Your task to perform on an android device: open a new tab in the chrome app Image 0: 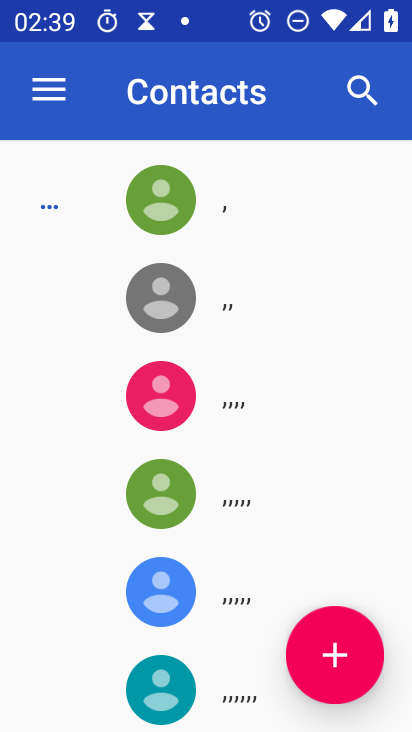
Step 0: press home button
Your task to perform on an android device: open a new tab in the chrome app Image 1: 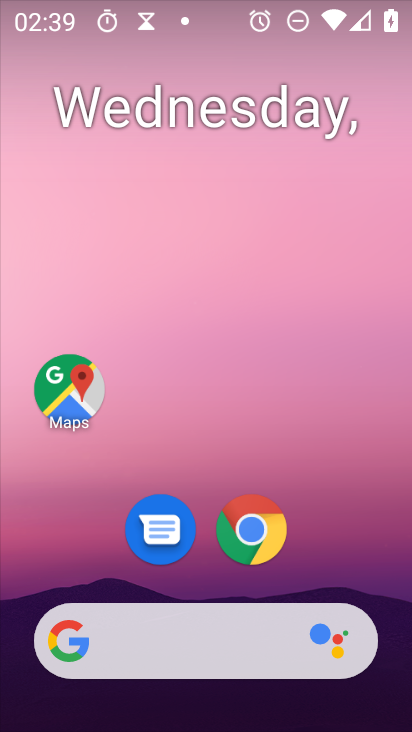
Step 1: drag from (200, 676) to (250, 22)
Your task to perform on an android device: open a new tab in the chrome app Image 2: 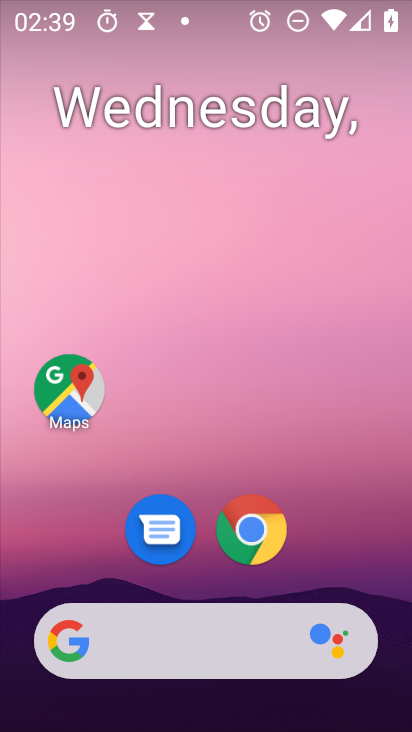
Step 2: drag from (284, 630) to (317, 34)
Your task to perform on an android device: open a new tab in the chrome app Image 3: 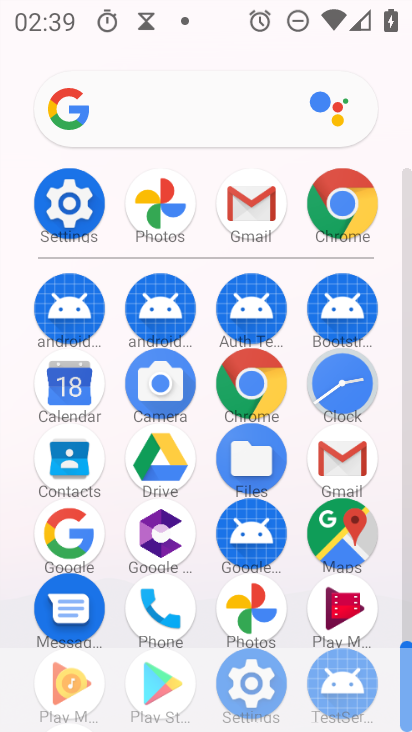
Step 3: click (245, 398)
Your task to perform on an android device: open a new tab in the chrome app Image 4: 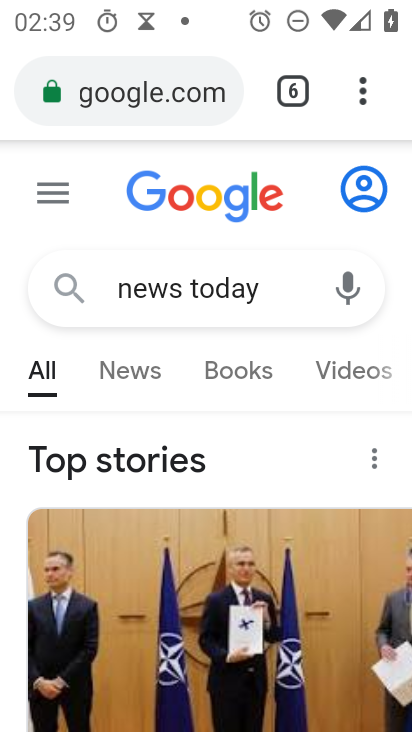
Step 4: click (357, 86)
Your task to perform on an android device: open a new tab in the chrome app Image 5: 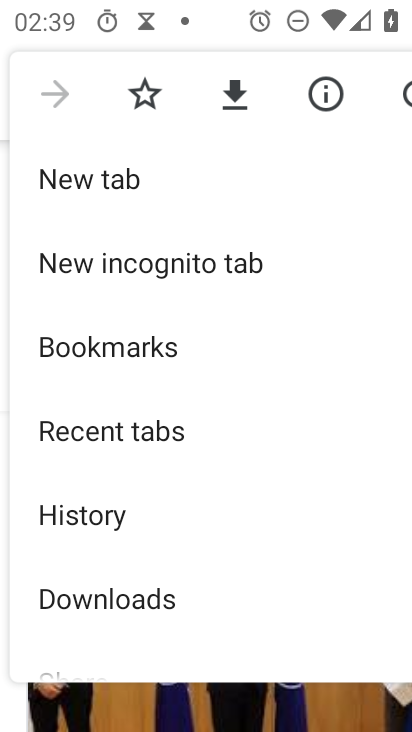
Step 5: click (139, 177)
Your task to perform on an android device: open a new tab in the chrome app Image 6: 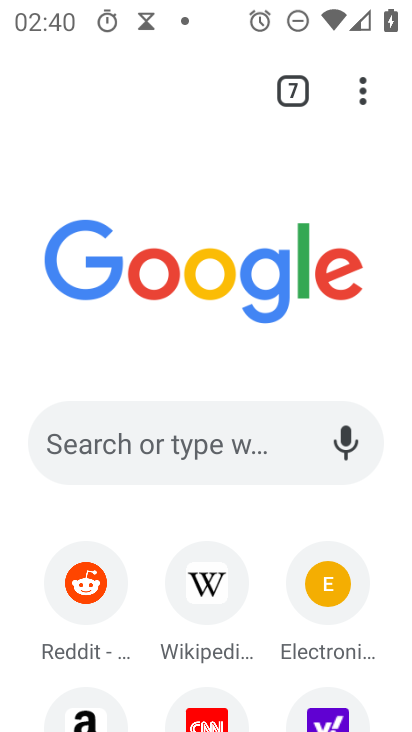
Step 6: task complete